Your task to perform on an android device: turn on airplane mode Image 0: 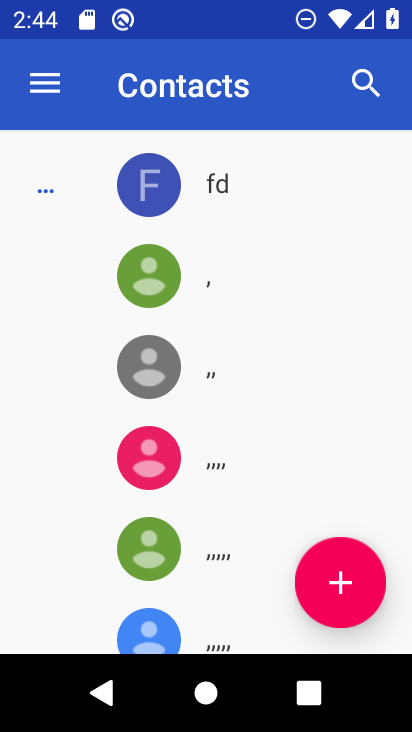
Step 0: press home button
Your task to perform on an android device: turn on airplane mode Image 1: 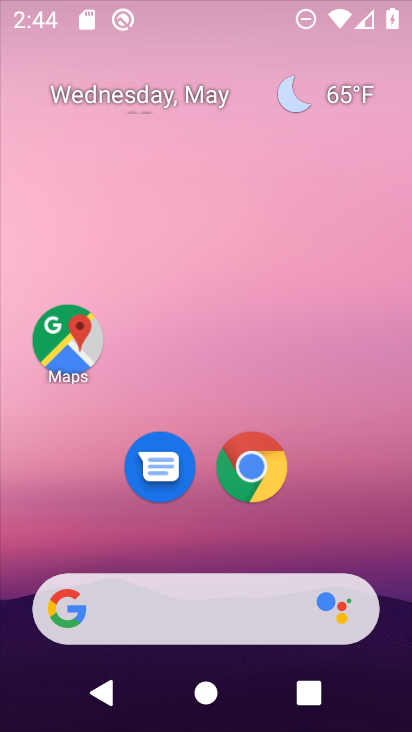
Step 1: drag from (297, 559) to (273, 253)
Your task to perform on an android device: turn on airplane mode Image 2: 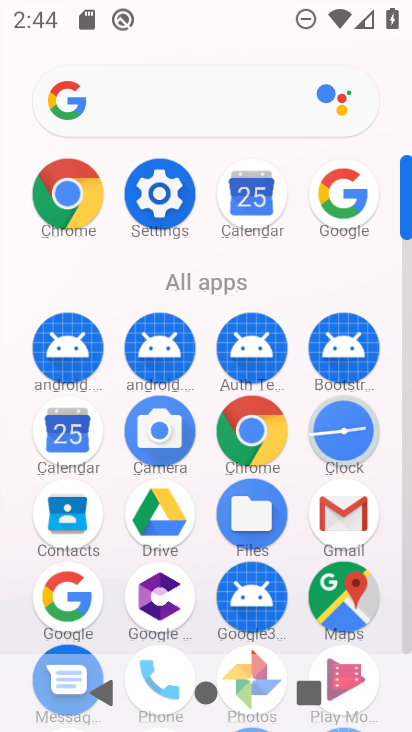
Step 2: click (141, 203)
Your task to perform on an android device: turn on airplane mode Image 3: 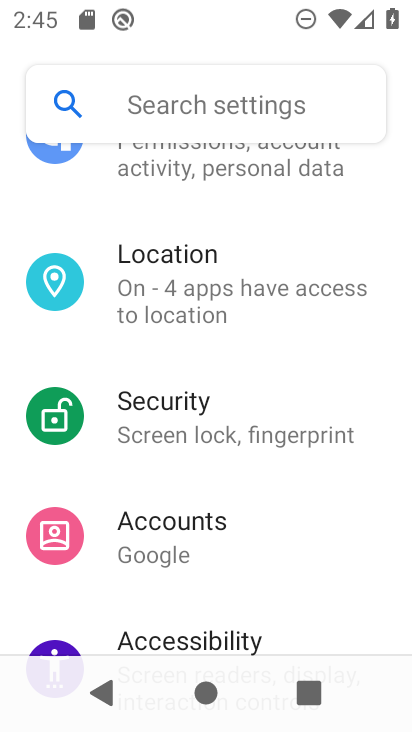
Step 3: drag from (338, 213) to (332, 578)
Your task to perform on an android device: turn on airplane mode Image 4: 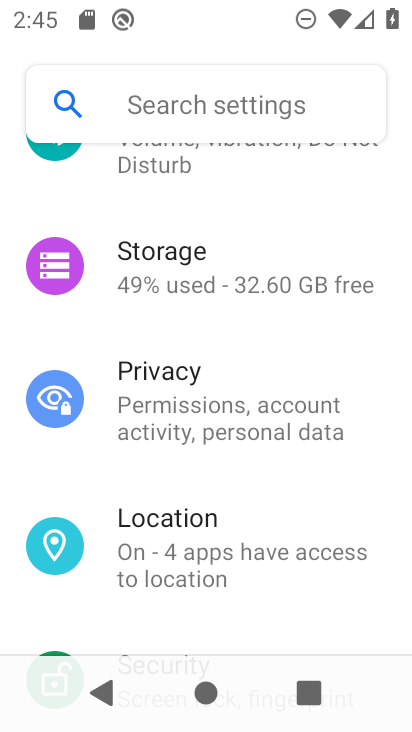
Step 4: drag from (218, 258) to (215, 620)
Your task to perform on an android device: turn on airplane mode Image 5: 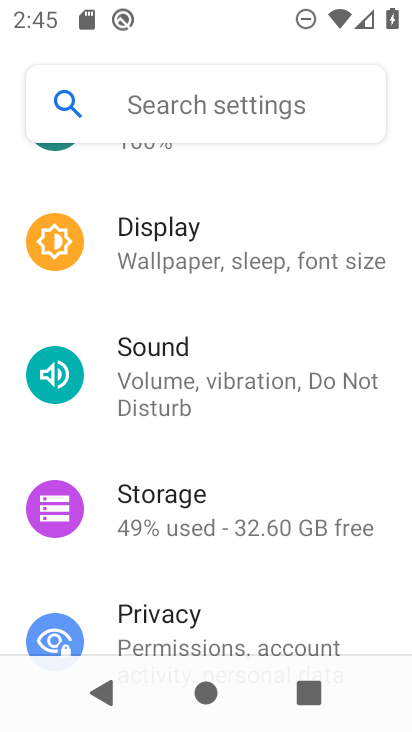
Step 5: drag from (189, 277) to (211, 636)
Your task to perform on an android device: turn on airplane mode Image 6: 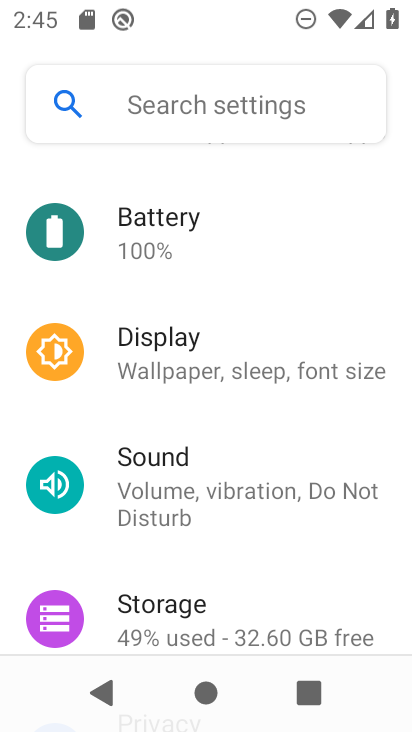
Step 6: drag from (167, 265) to (218, 685)
Your task to perform on an android device: turn on airplane mode Image 7: 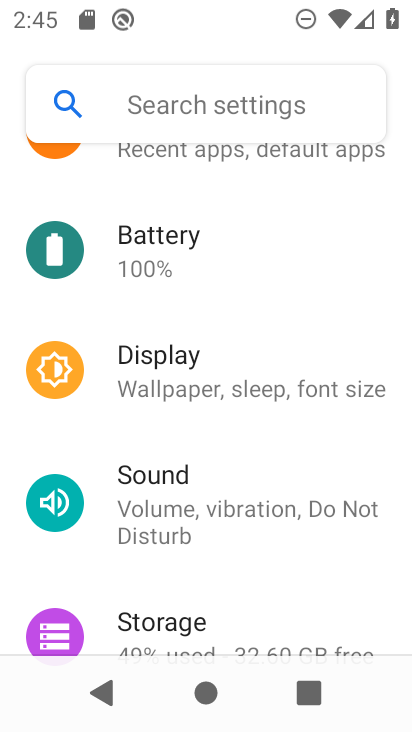
Step 7: drag from (250, 234) to (255, 579)
Your task to perform on an android device: turn on airplane mode Image 8: 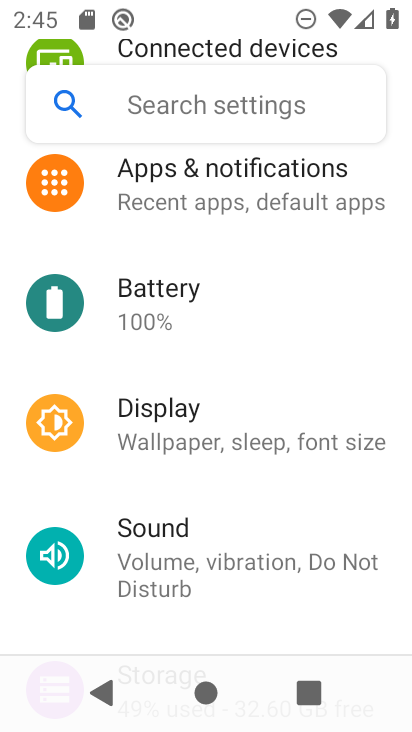
Step 8: drag from (202, 207) to (202, 555)
Your task to perform on an android device: turn on airplane mode Image 9: 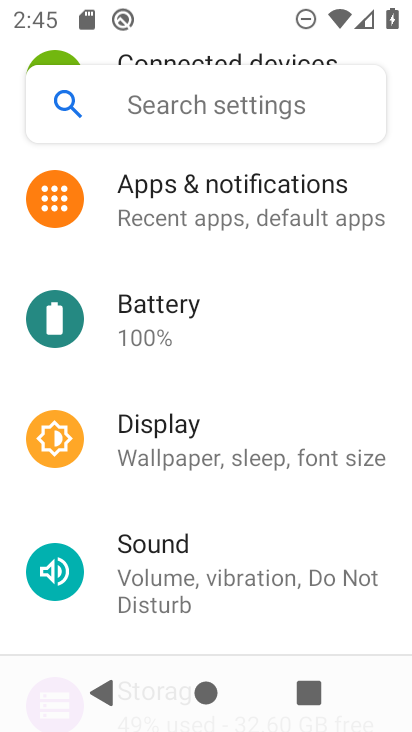
Step 9: drag from (216, 364) to (250, 621)
Your task to perform on an android device: turn on airplane mode Image 10: 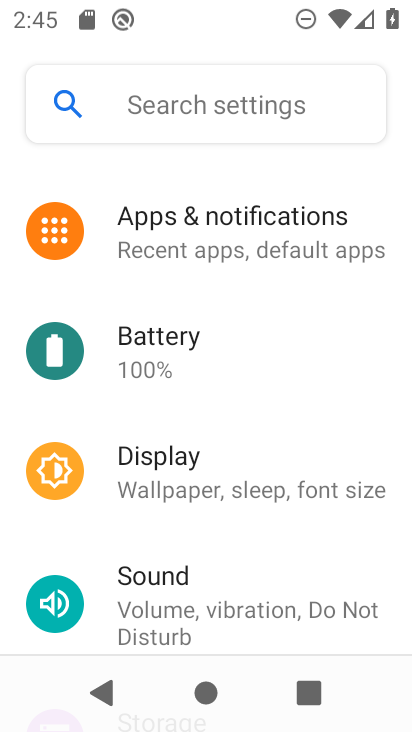
Step 10: click (233, 223)
Your task to perform on an android device: turn on airplane mode Image 11: 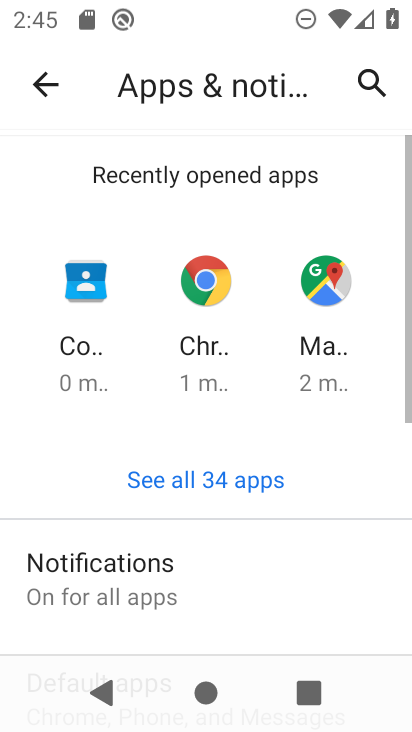
Step 11: drag from (224, 538) to (245, 318)
Your task to perform on an android device: turn on airplane mode Image 12: 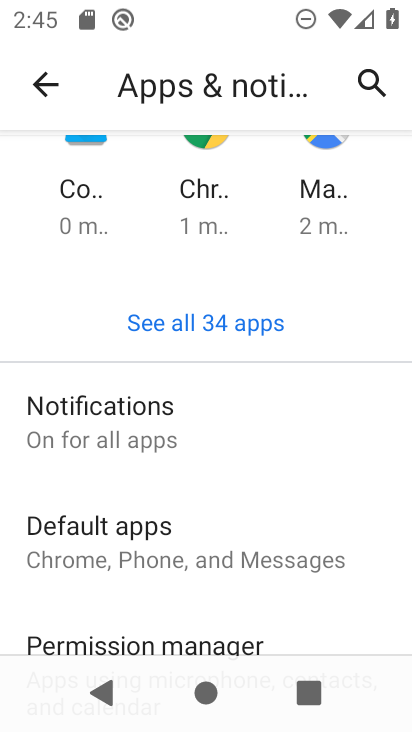
Step 12: drag from (190, 583) to (196, 309)
Your task to perform on an android device: turn on airplane mode Image 13: 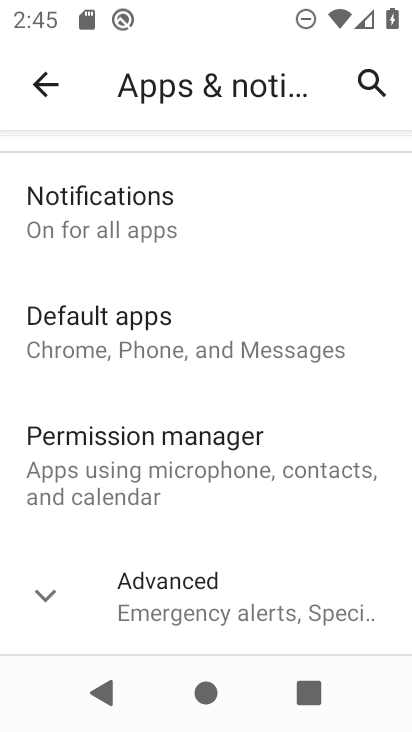
Step 13: click (73, 91)
Your task to perform on an android device: turn on airplane mode Image 14: 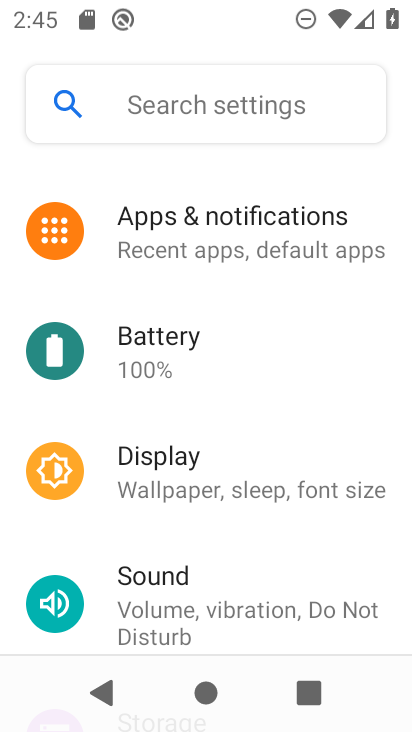
Step 14: drag from (230, 228) to (234, 549)
Your task to perform on an android device: turn on airplane mode Image 15: 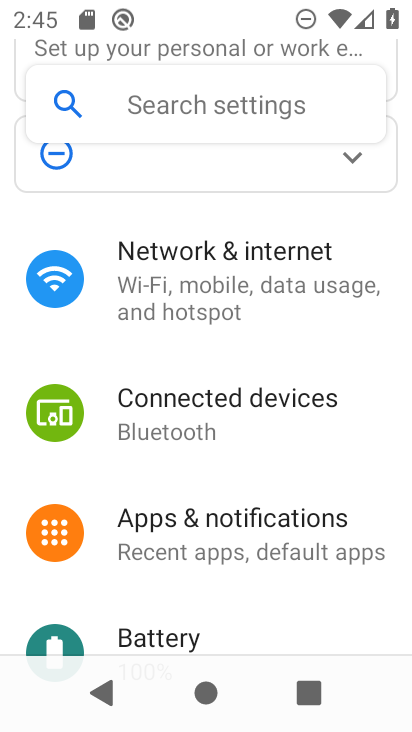
Step 15: click (186, 184)
Your task to perform on an android device: turn on airplane mode Image 16: 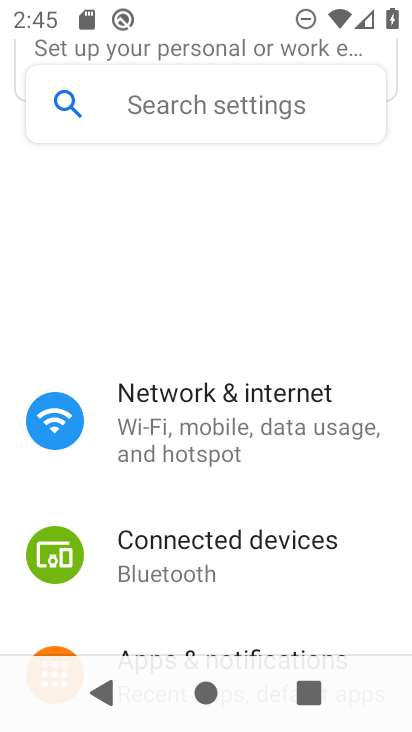
Step 16: click (200, 245)
Your task to perform on an android device: turn on airplane mode Image 17: 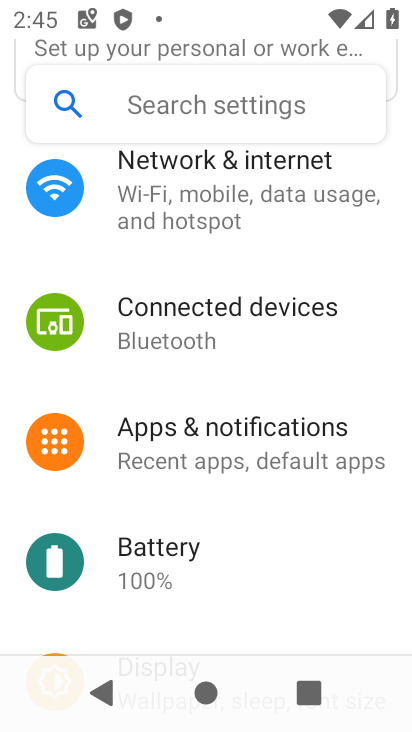
Step 17: click (151, 221)
Your task to perform on an android device: turn on airplane mode Image 18: 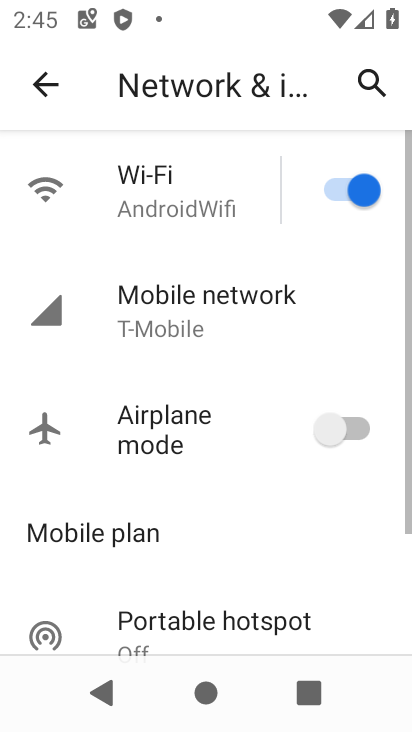
Step 18: click (344, 414)
Your task to perform on an android device: turn on airplane mode Image 19: 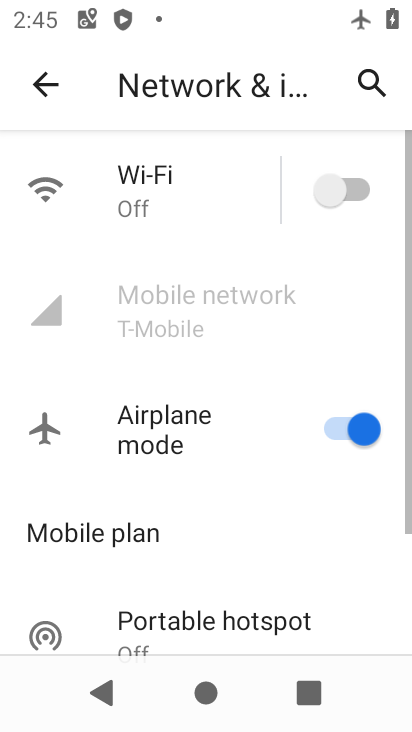
Step 19: task complete